Your task to perform on an android device: open app "Microsoft Excel" Image 0: 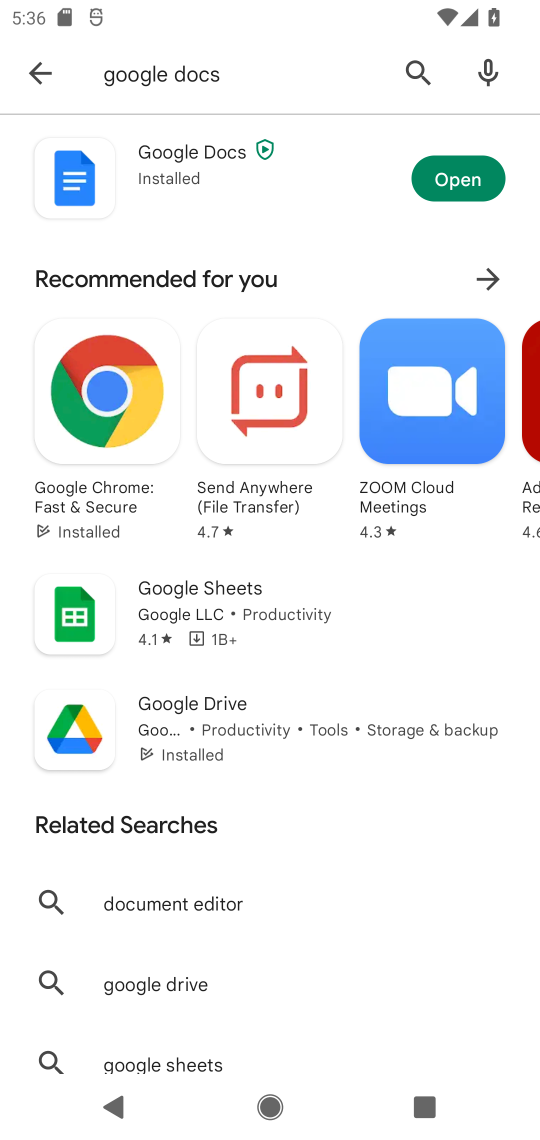
Step 0: click (417, 68)
Your task to perform on an android device: open app "Microsoft Excel" Image 1: 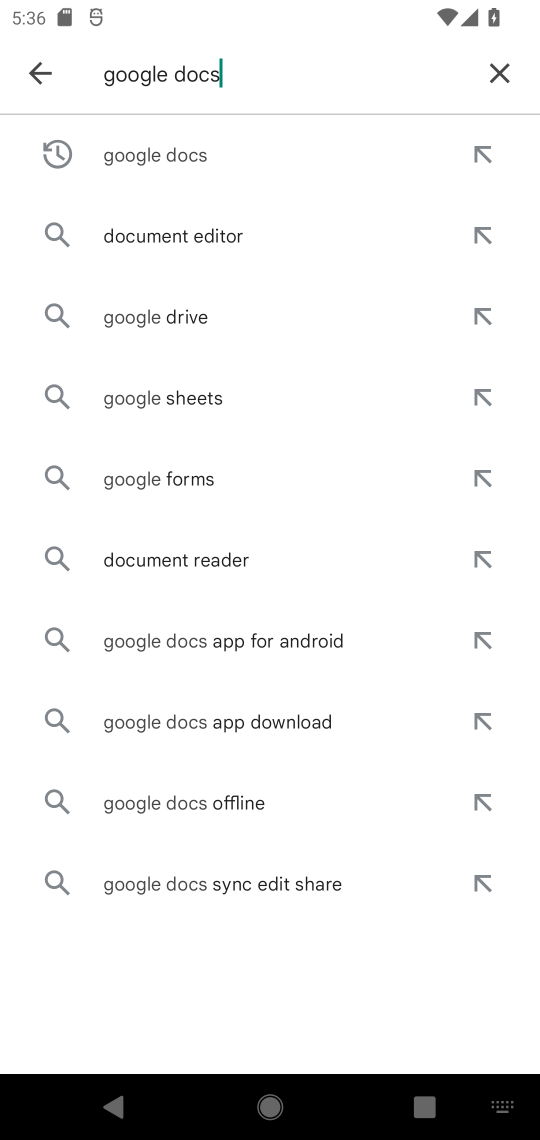
Step 1: click (490, 67)
Your task to perform on an android device: open app "Microsoft Excel" Image 2: 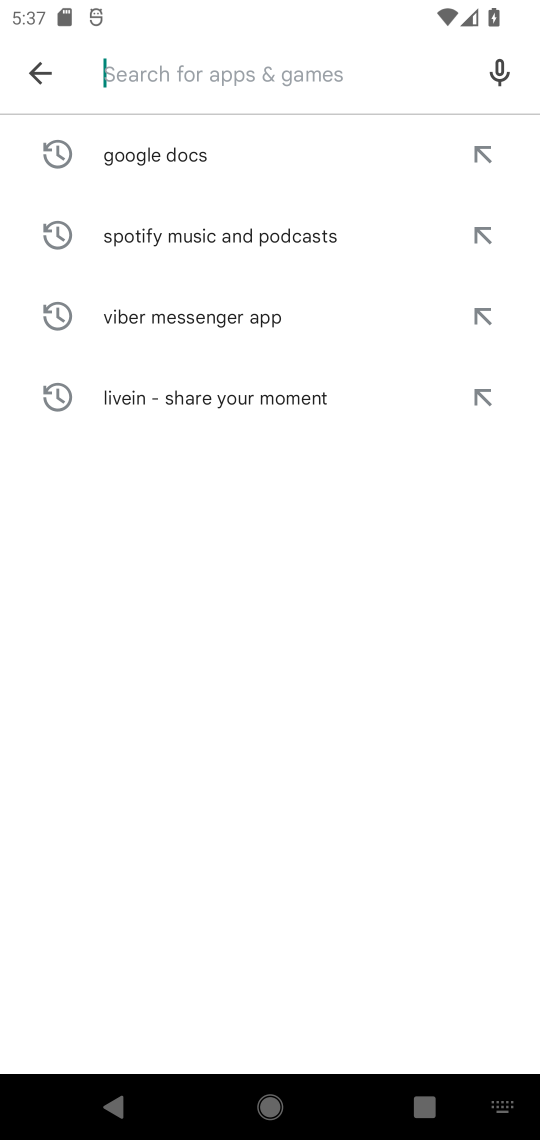
Step 2: type "Microsoft Excel"
Your task to perform on an android device: open app "Microsoft Excel" Image 3: 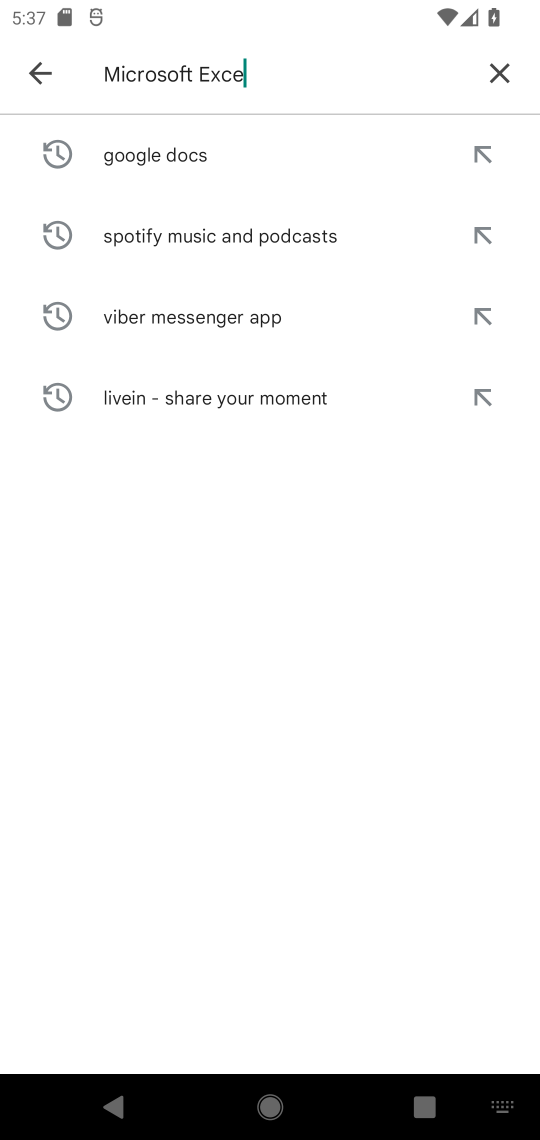
Step 3: type ""
Your task to perform on an android device: open app "Microsoft Excel" Image 4: 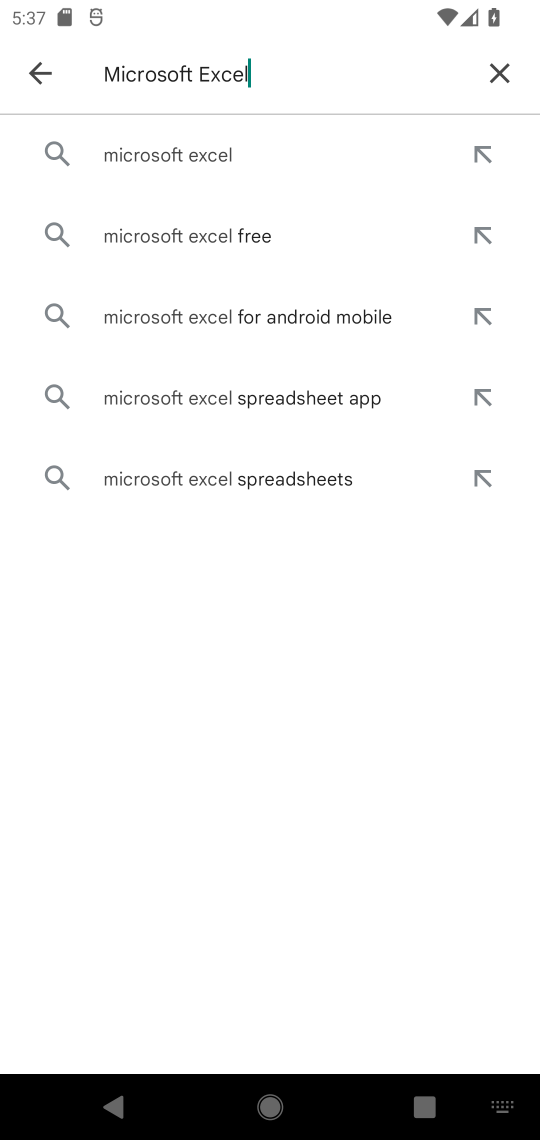
Step 4: click (156, 158)
Your task to perform on an android device: open app "Microsoft Excel" Image 5: 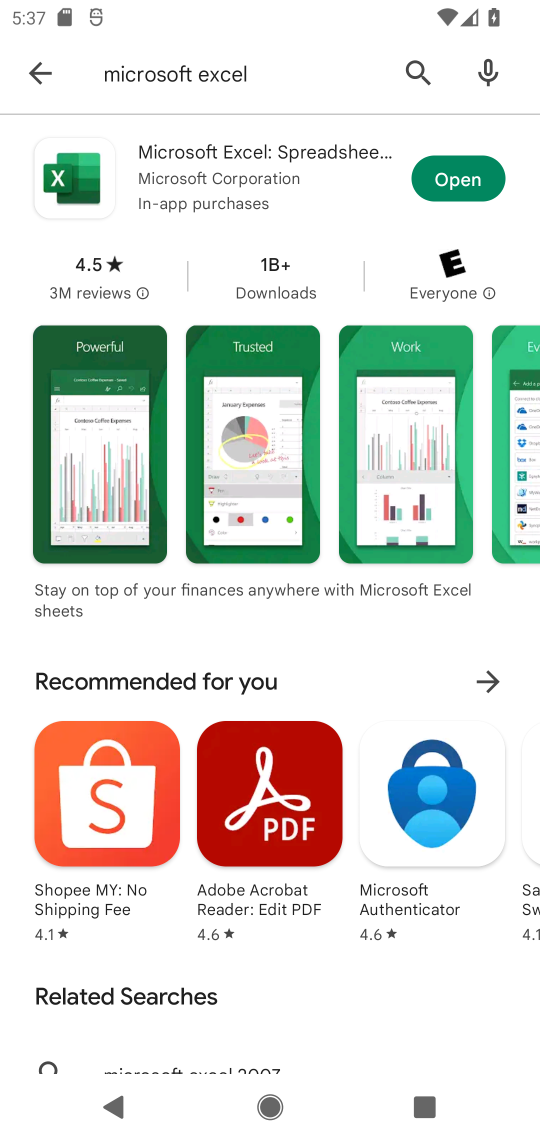
Step 5: click (456, 182)
Your task to perform on an android device: open app "Microsoft Excel" Image 6: 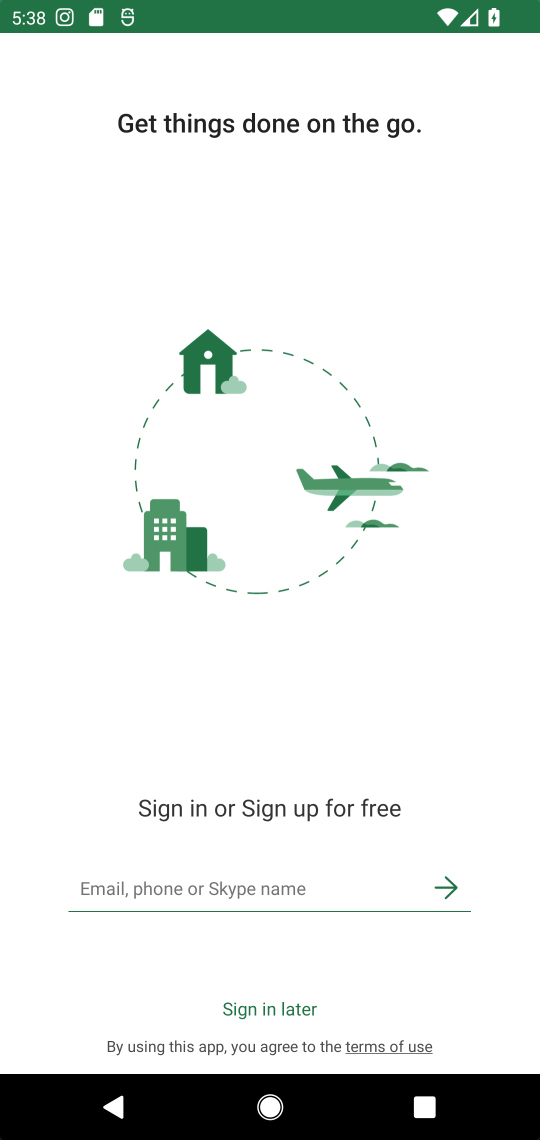
Step 6: task complete